Your task to perform on an android device: When is my next meeting? Image 0: 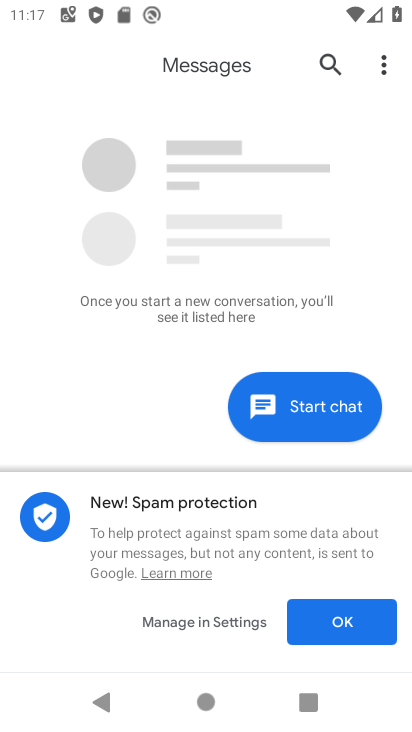
Step 0: press home button
Your task to perform on an android device: When is my next meeting? Image 1: 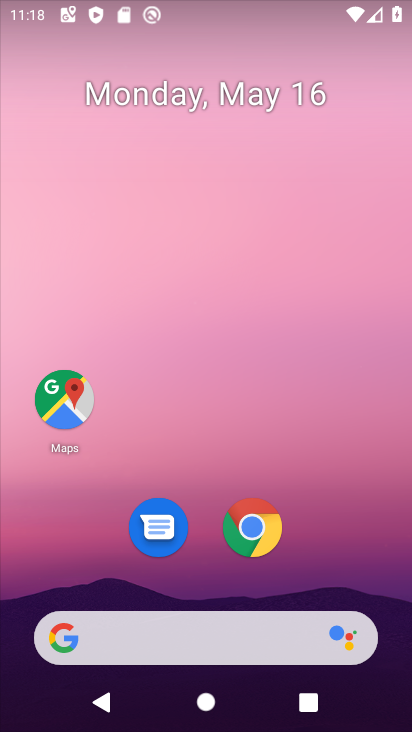
Step 1: drag from (302, 668) to (300, 256)
Your task to perform on an android device: When is my next meeting? Image 2: 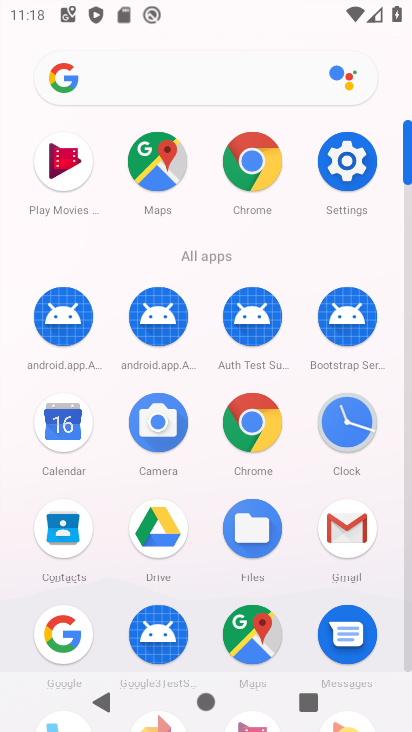
Step 2: click (68, 425)
Your task to perform on an android device: When is my next meeting? Image 3: 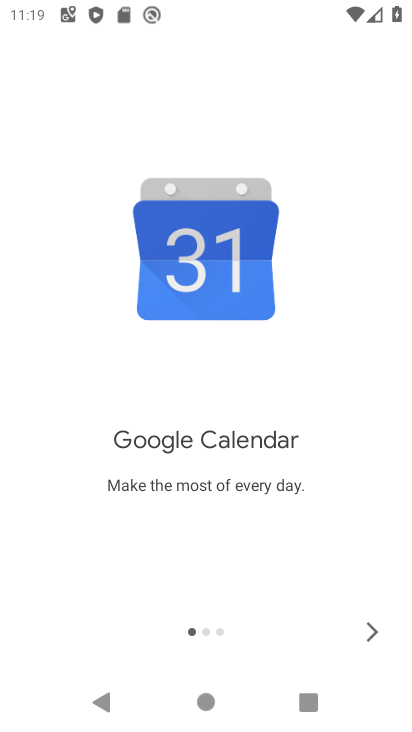
Step 3: click (353, 625)
Your task to perform on an android device: When is my next meeting? Image 4: 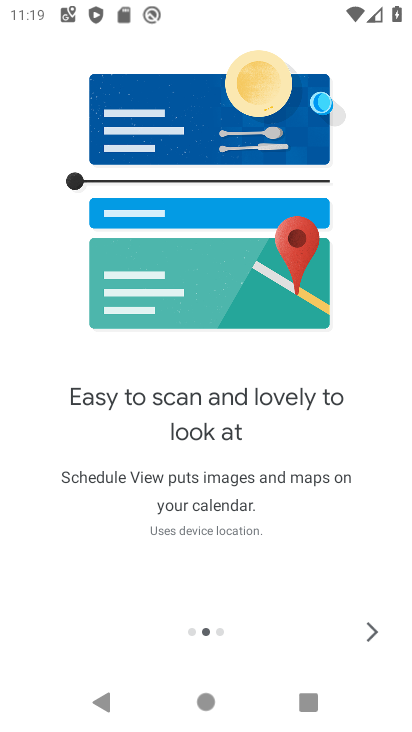
Step 4: click (368, 611)
Your task to perform on an android device: When is my next meeting? Image 5: 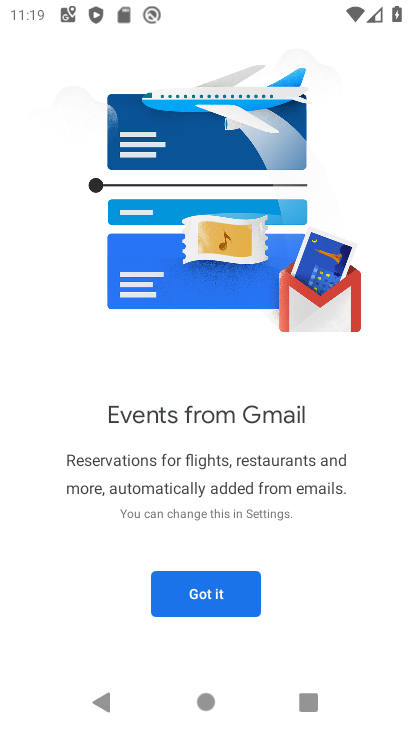
Step 5: click (195, 598)
Your task to perform on an android device: When is my next meeting? Image 6: 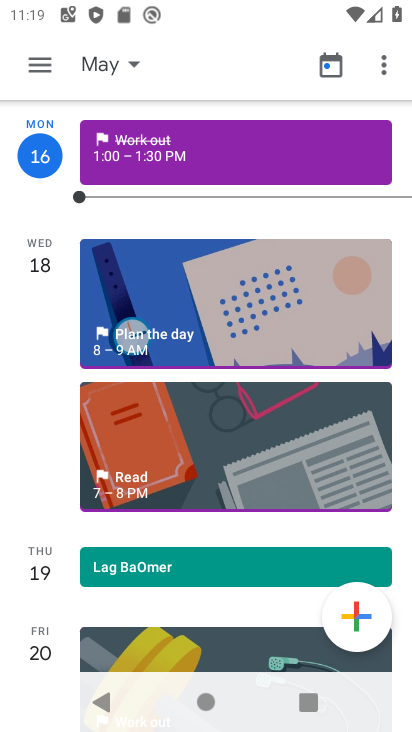
Step 6: task complete